Your task to perform on an android device: Open sound settings Image 0: 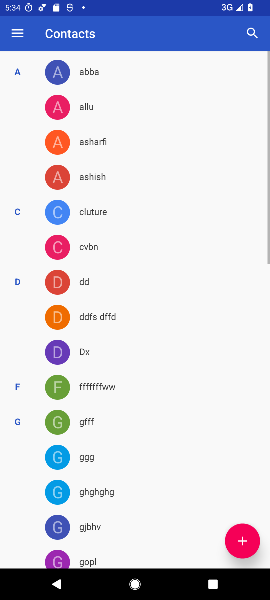
Step 0: press home button
Your task to perform on an android device: Open sound settings Image 1: 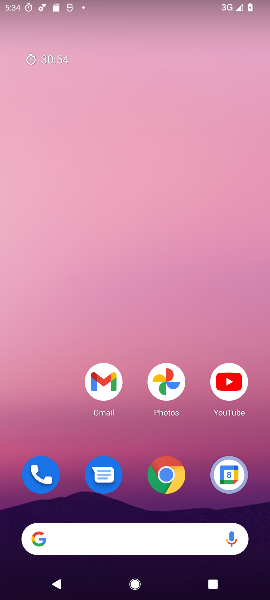
Step 1: drag from (51, 406) to (55, 127)
Your task to perform on an android device: Open sound settings Image 2: 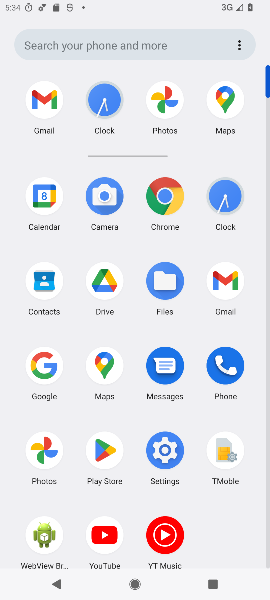
Step 2: click (165, 453)
Your task to perform on an android device: Open sound settings Image 3: 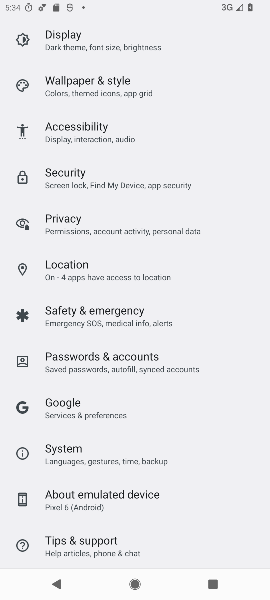
Step 3: drag from (239, 144) to (232, 318)
Your task to perform on an android device: Open sound settings Image 4: 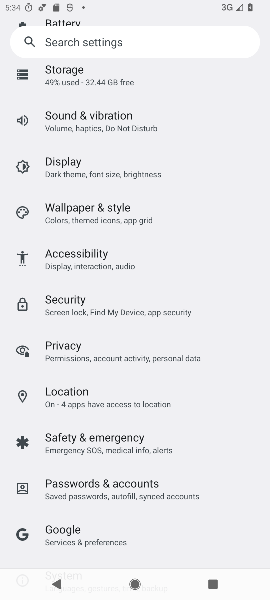
Step 4: drag from (234, 287) to (235, 355)
Your task to perform on an android device: Open sound settings Image 5: 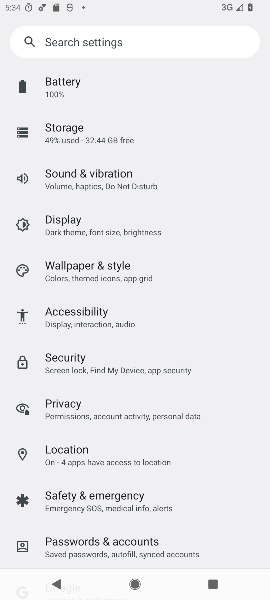
Step 5: drag from (227, 128) to (230, 307)
Your task to perform on an android device: Open sound settings Image 6: 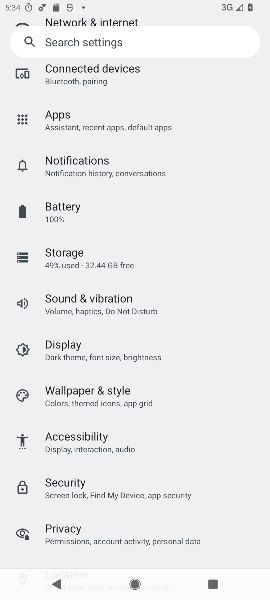
Step 6: drag from (224, 138) to (227, 307)
Your task to perform on an android device: Open sound settings Image 7: 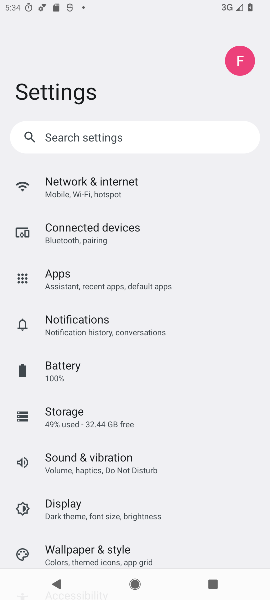
Step 7: drag from (230, 174) to (230, 344)
Your task to perform on an android device: Open sound settings Image 8: 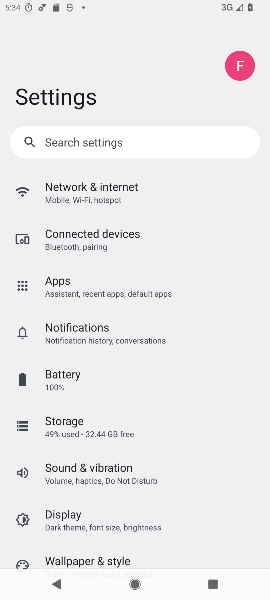
Step 8: drag from (221, 344) to (218, 248)
Your task to perform on an android device: Open sound settings Image 9: 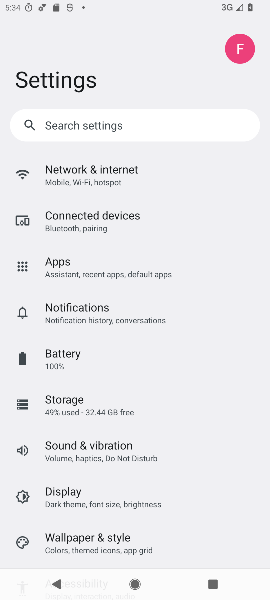
Step 9: drag from (224, 382) to (228, 255)
Your task to perform on an android device: Open sound settings Image 10: 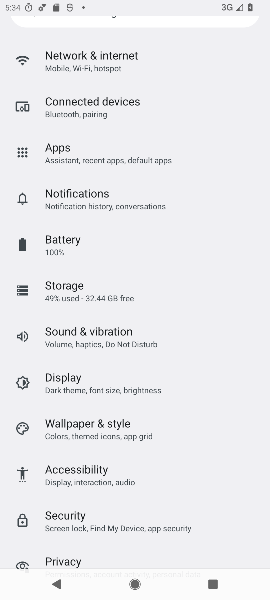
Step 10: drag from (211, 368) to (214, 219)
Your task to perform on an android device: Open sound settings Image 11: 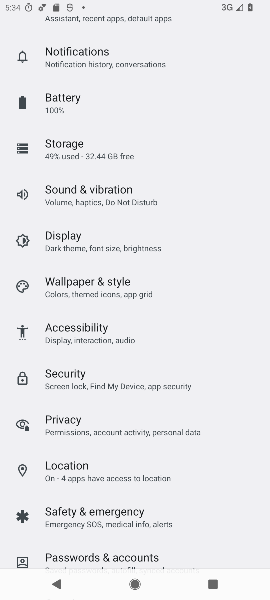
Step 11: click (194, 200)
Your task to perform on an android device: Open sound settings Image 12: 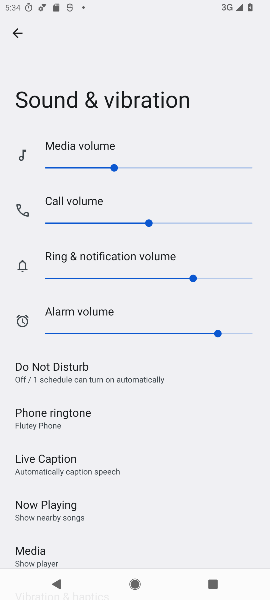
Step 12: task complete